Your task to perform on an android device: Go to wifi settings Image 0: 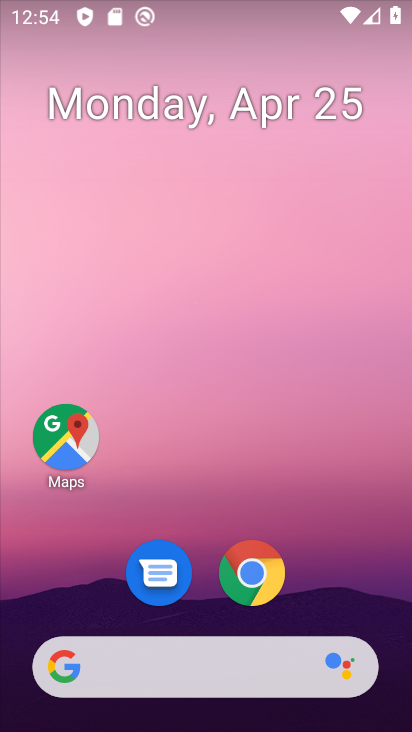
Step 0: drag from (209, 602) to (176, 42)
Your task to perform on an android device: Go to wifi settings Image 1: 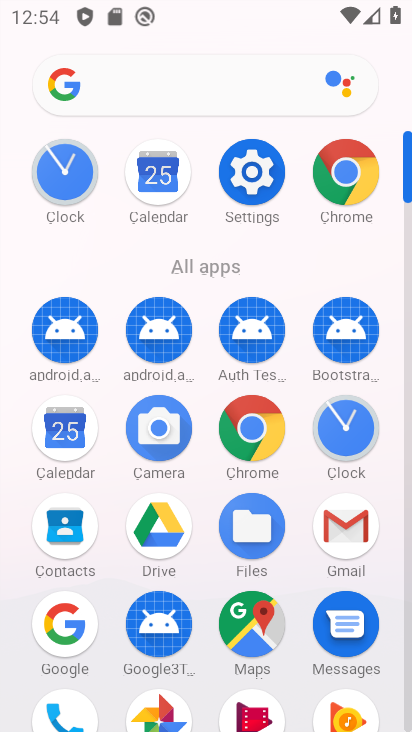
Step 1: click (258, 177)
Your task to perform on an android device: Go to wifi settings Image 2: 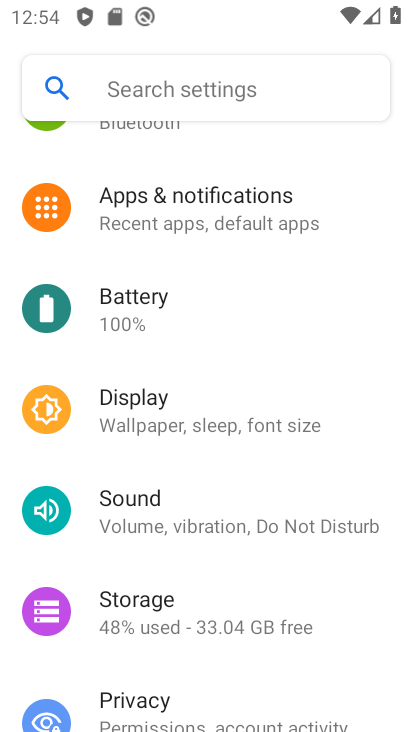
Step 2: drag from (172, 147) to (271, 724)
Your task to perform on an android device: Go to wifi settings Image 3: 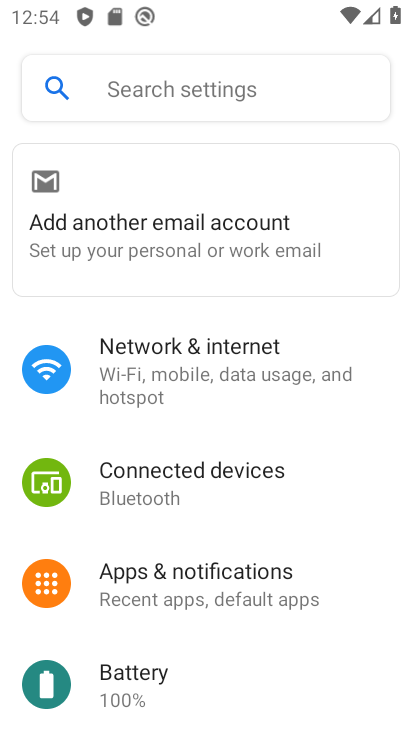
Step 3: click (223, 351)
Your task to perform on an android device: Go to wifi settings Image 4: 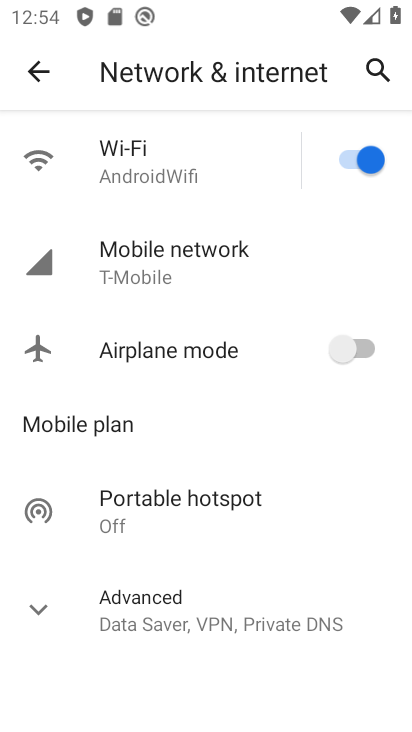
Step 4: click (153, 155)
Your task to perform on an android device: Go to wifi settings Image 5: 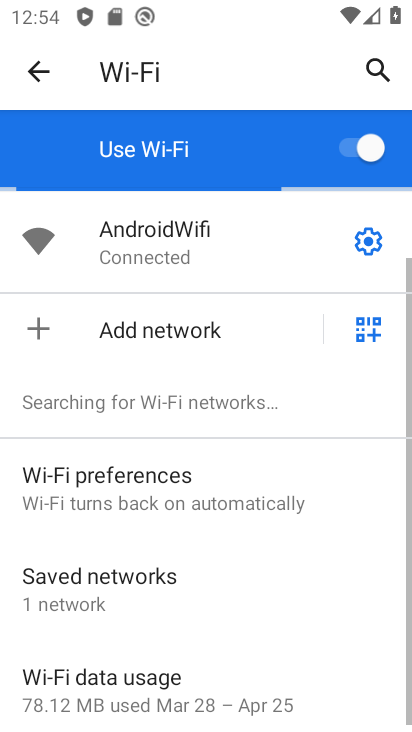
Step 5: task complete